Your task to perform on an android device: empty trash in the gmail app Image 0: 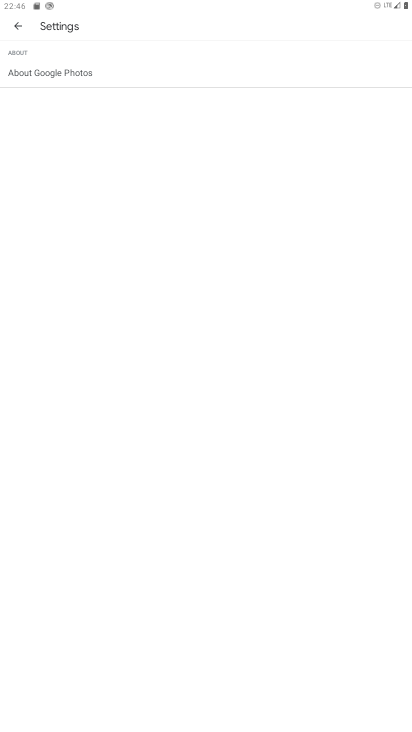
Step 0: press home button
Your task to perform on an android device: empty trash in the gmail app Image 1: 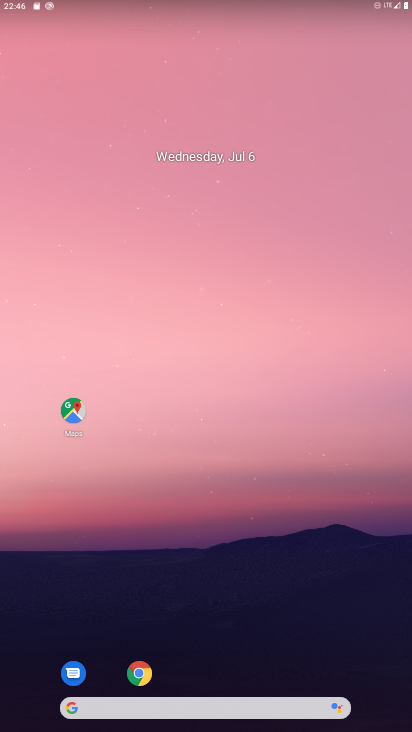
Step 1: drag from (277, 679) to (257, 1)
Your task to perform on an android device: empty trash in the gmail app Image 2: 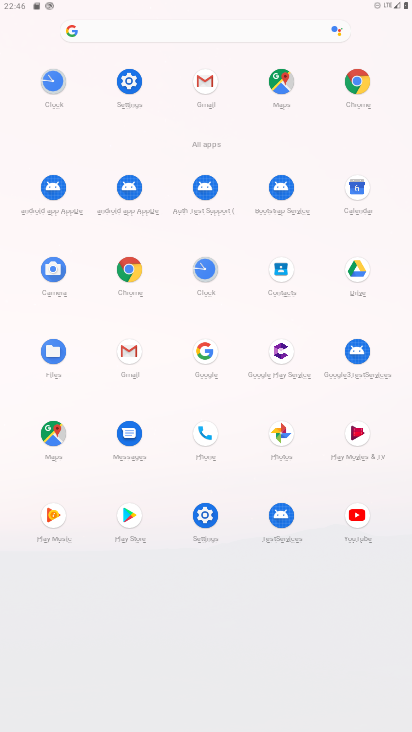
Step 2: click (201, 94)
Your task to perform on an android device: empty trash in the gmail app Image 3: 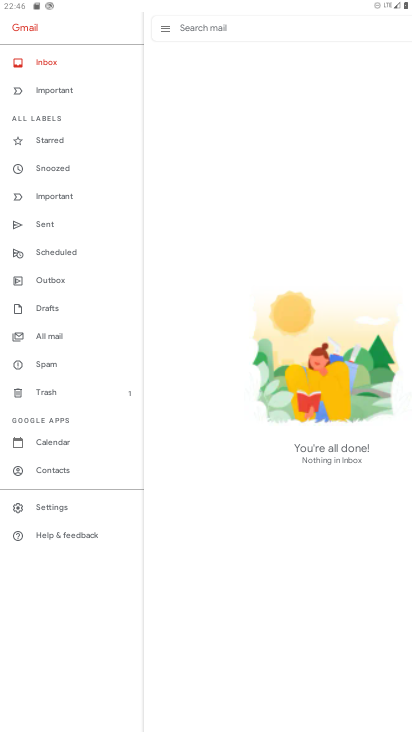
Step 3: click (56, 396)
Your task to perform on an android device: empty trash in the gmail app Image 4: 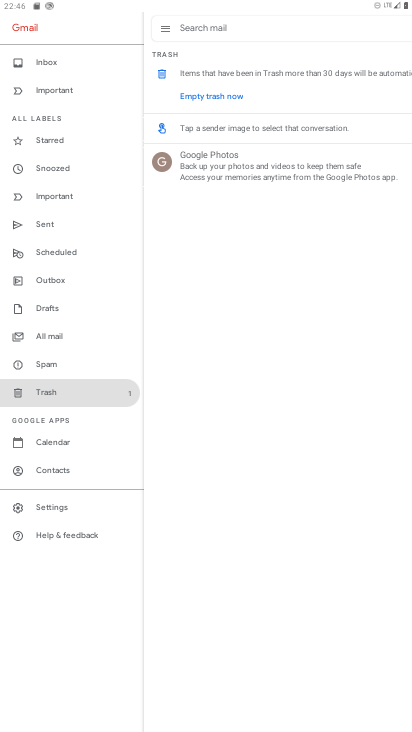
Step 4: click (209, 98)
Your task to perform on an android device: empty trash in the gmail app Image 5: 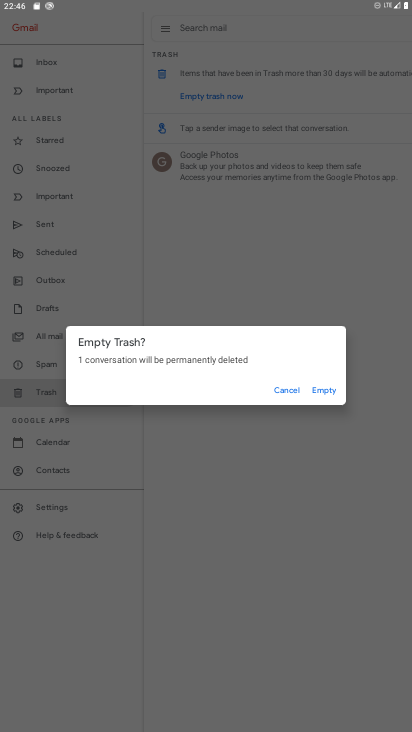
Step 5: click (328, 396)
Your task to perform on an android device: empty trash in the gmail app Image 6: 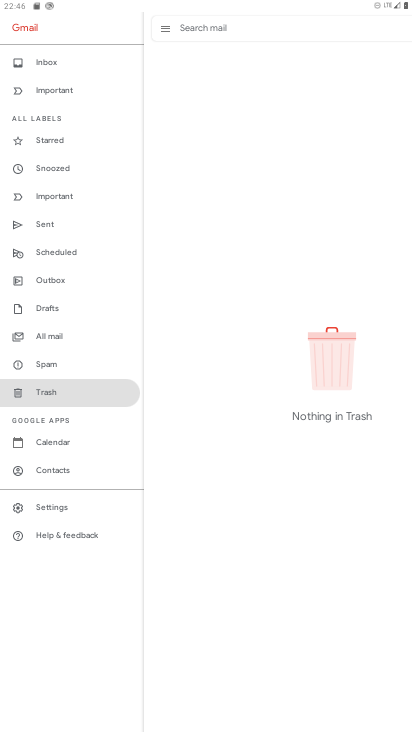
Step 6: task complete